Your task to perform on an android device: Search for "acer predator" on amazon.com, select the first entry, and add it to the cart. Image 0: 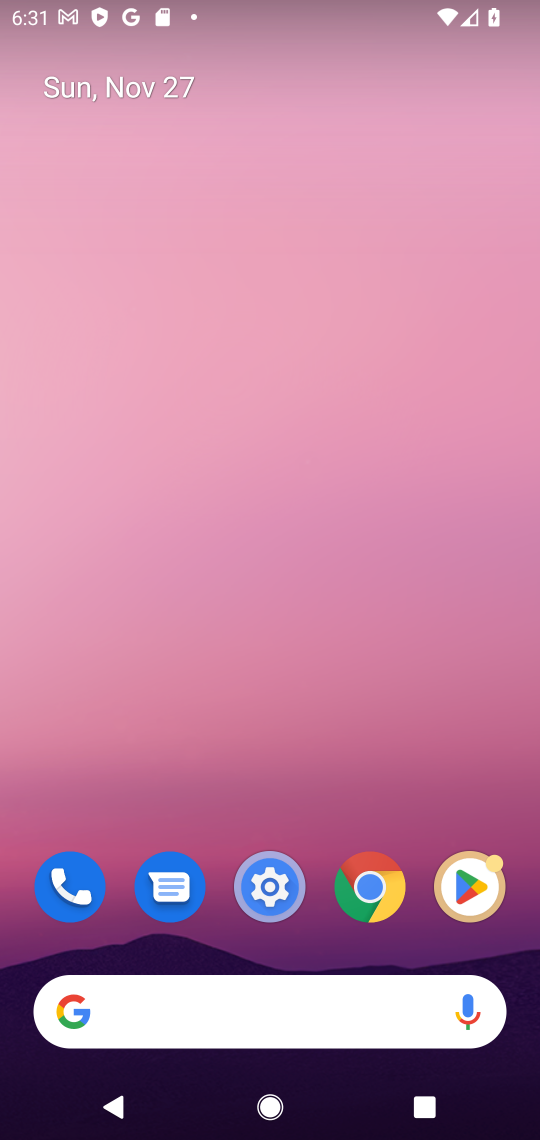
Step 0: click (254, 993)
Your task to perform on an android device: Search for "acer predator" on amazon.com, select the first entry, and add it to the cart. Image 1: 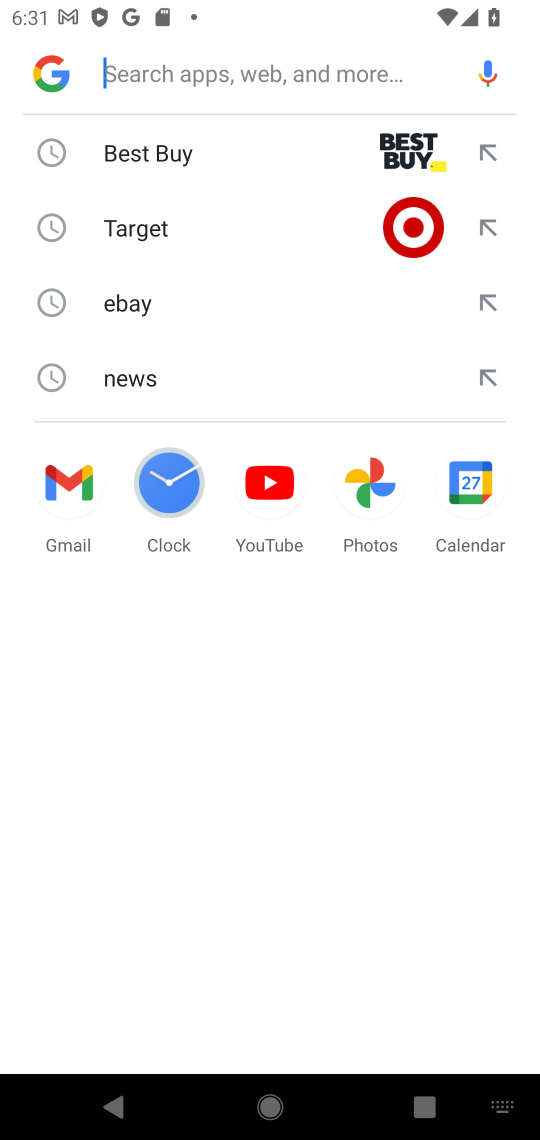
Step 1: type "amazon"
Your task to perform on an android device: Search for "acer predator" on amazon.com, select the first entry, and add it to the cart. Image 2: 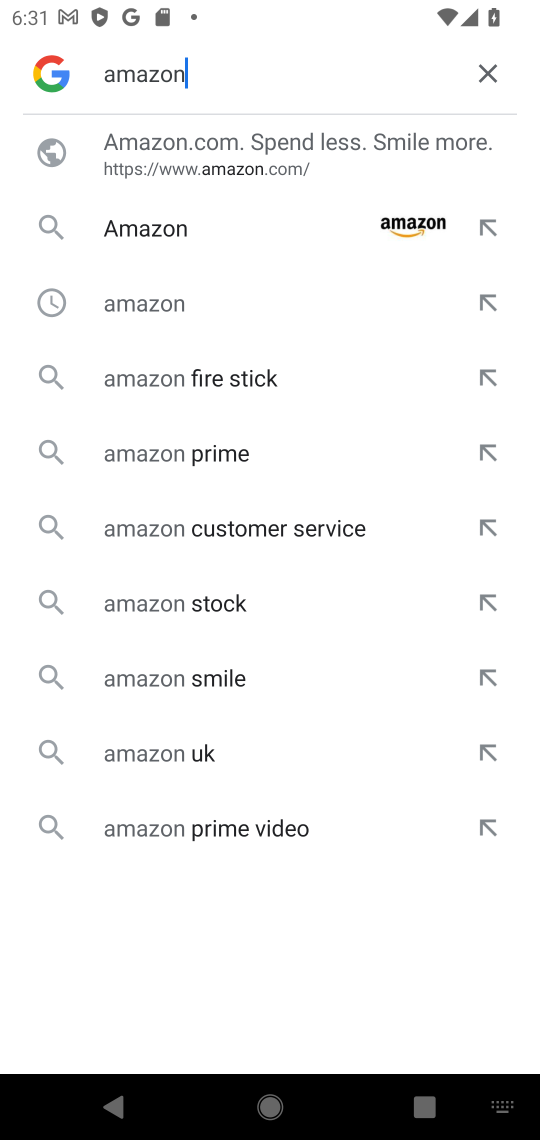
Step 2: click (152, 185)
Your task to perform on an android device: Search for "acer predator" on amazon.com, select the first entry, and add it to the cart. Image 3: 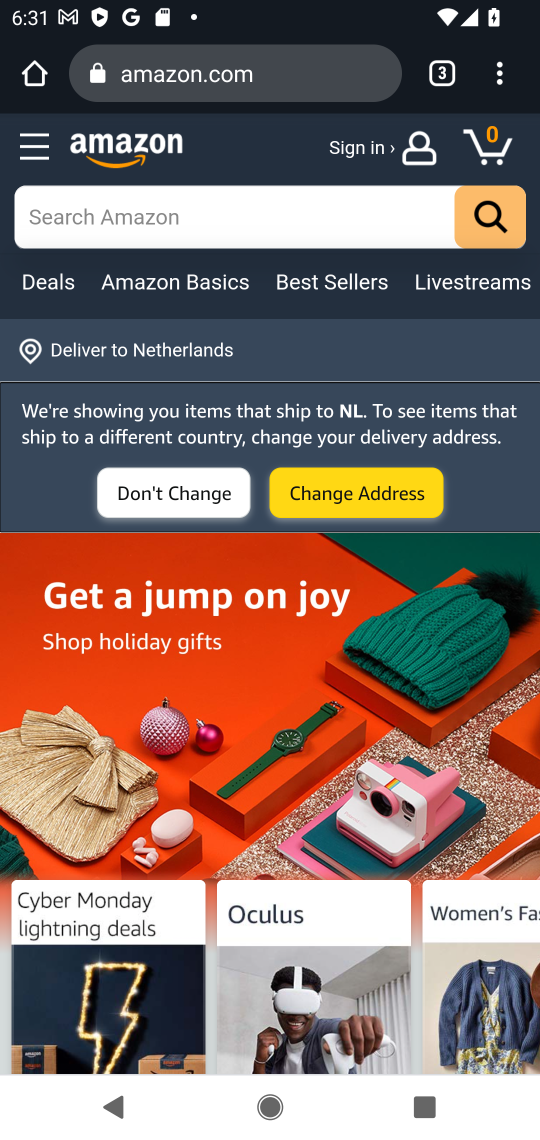
Step 3: click (247, 237)
Your task to perform on an android device: Search for "acer predator" on amazon.com, select the first entry, and add it to the cart. Image 4: 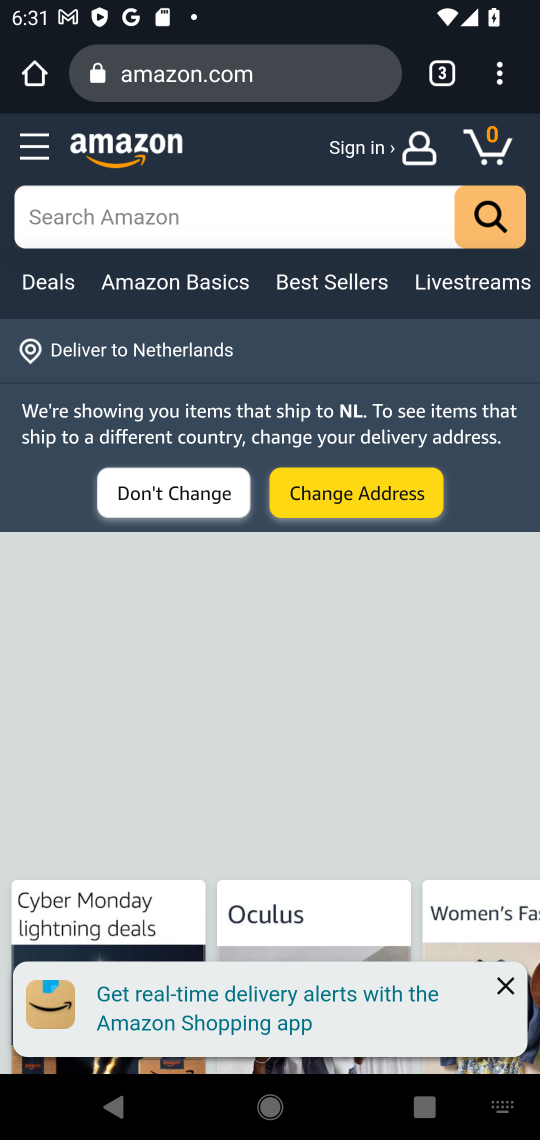
Step 4: type "acer predator"
Your task to perform on an android device: Search for "acer predator" on amazon.com, select the first entry, and add it to the cart. Image 5: 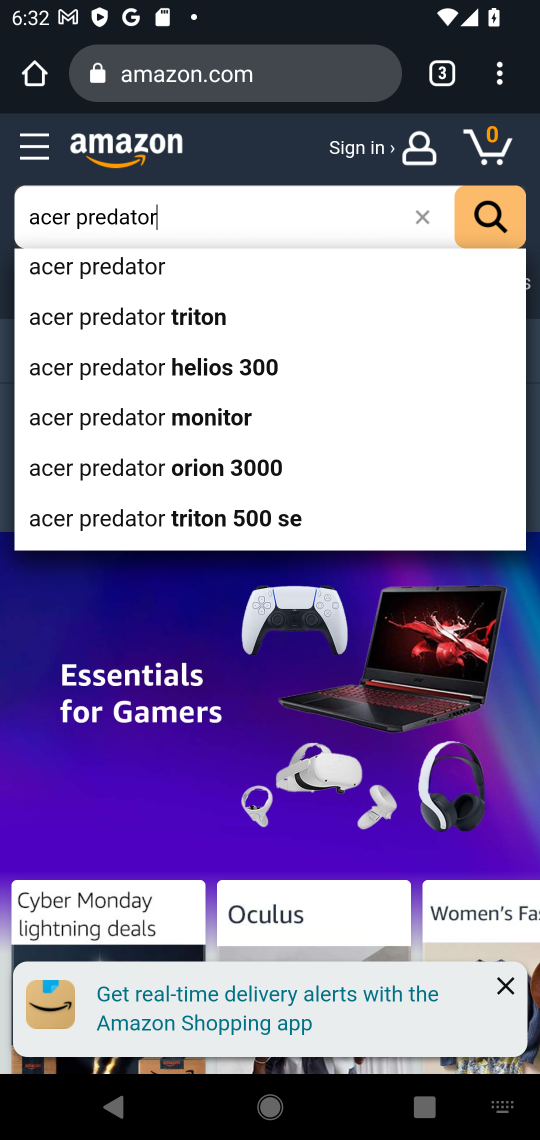
Step 5: click (176, 282)
Your task to perform on an android device: Search for "acer predator" on amazon.com, select the first entry, and add it to the cart. Image 6: 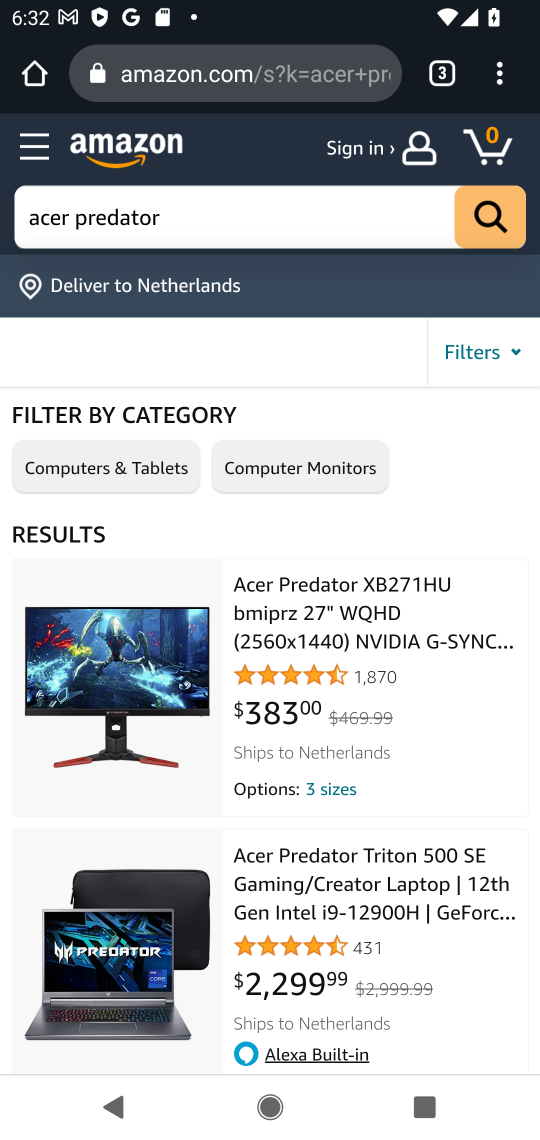
Step 6: click (344, 620)
Your task to perform on an android device: Search for "acer predator" on amazon.com, select the first entry, and add it to the cart. Image 7: 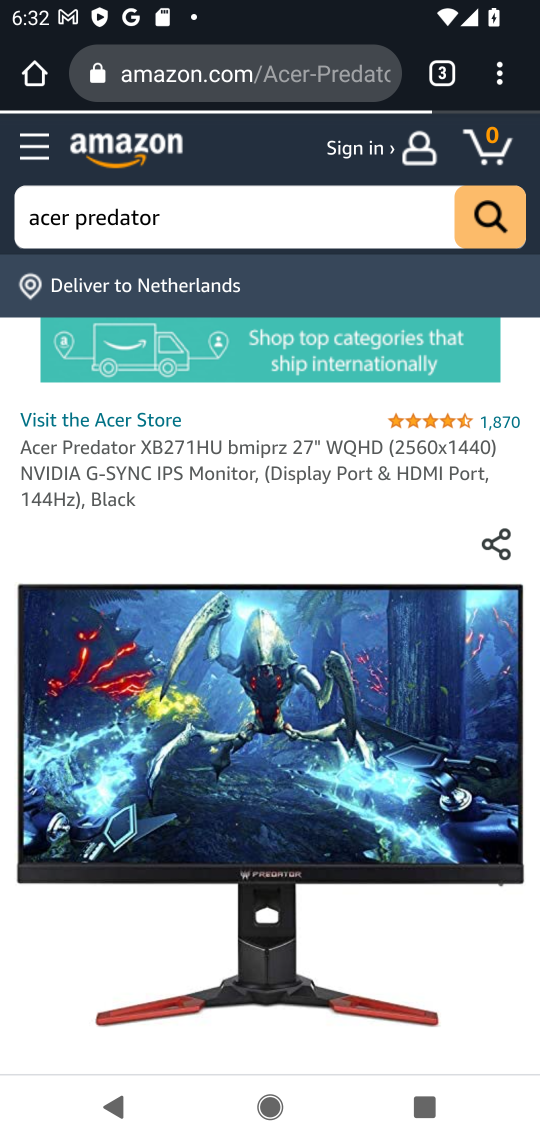
Step 7: drag from (441, 941) to (445, 511)
Your task to perform on an android device: Search for "acer predator" on amazon.com, select the first entry, and add it to the cart. Image 8: 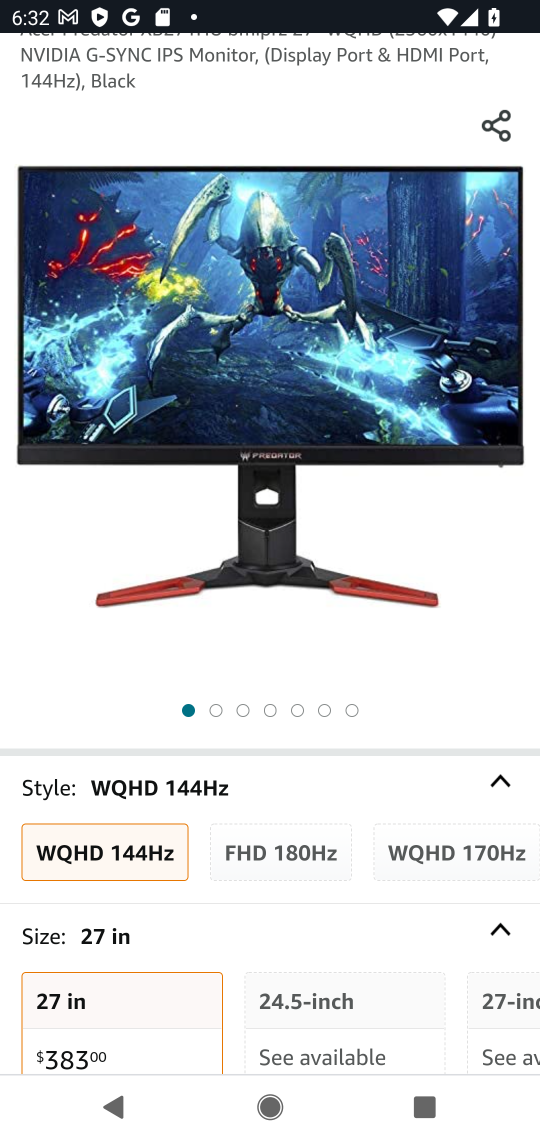
Step 8: drag from (351, 764) to (317, 452)
Your task to perform on an android device: Search for "acer predator" on amazon.com, select the first entry, and add it to the cart. Image 9: 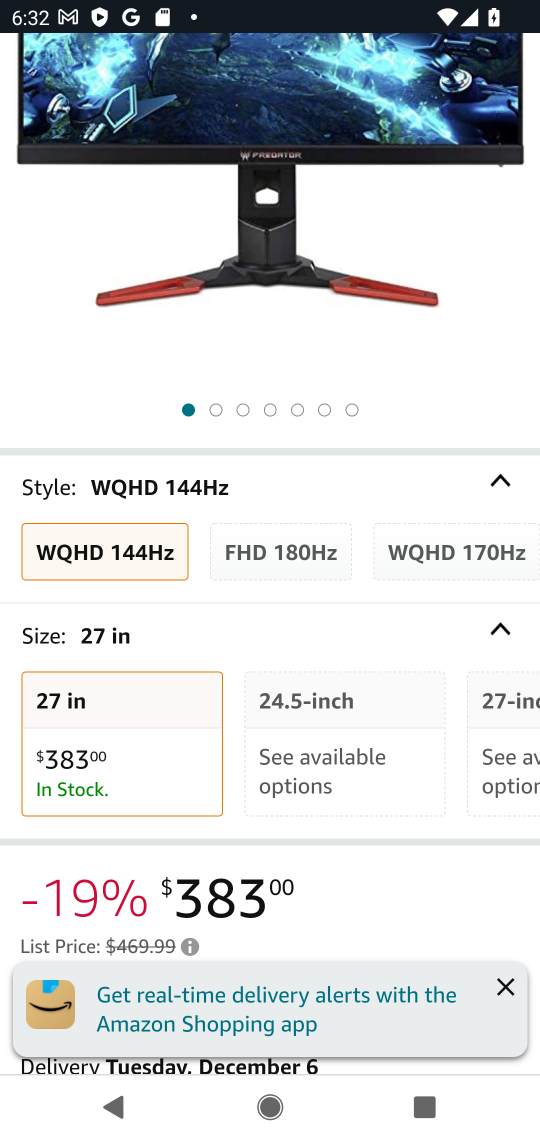
Step 9: click (507, 985)
Your task to perform on an android device: Search for "acer predator" on amazon.com, select the first entry, and add it to the cart. Image 10: 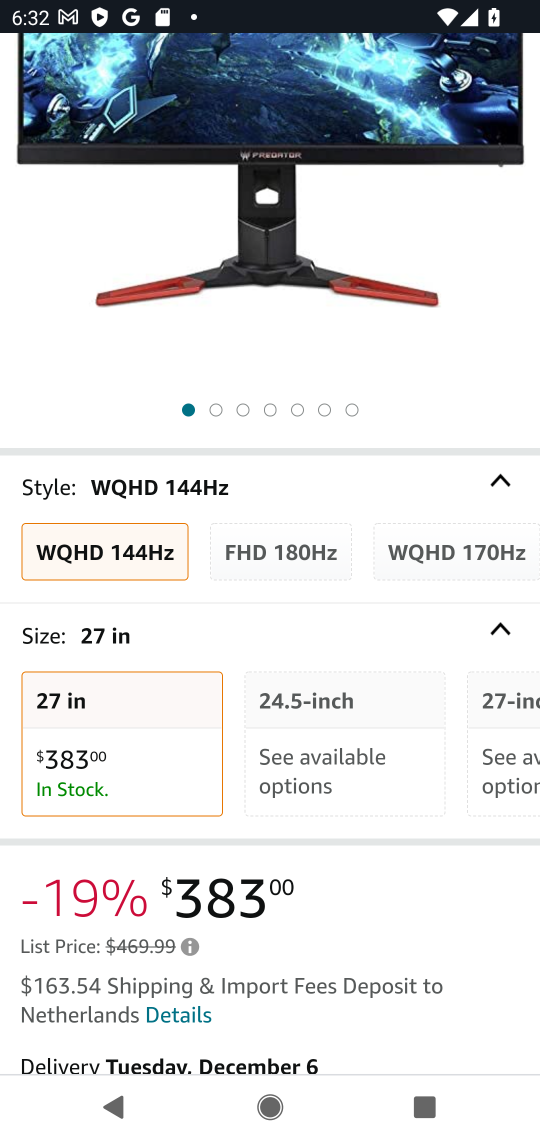
Step 10: drag from (416, 907) to (400, 335)
Your task to perform on an android device: Search for "acer predator" on amazon.com, select the first entry, and add it to the cart. Image 11: 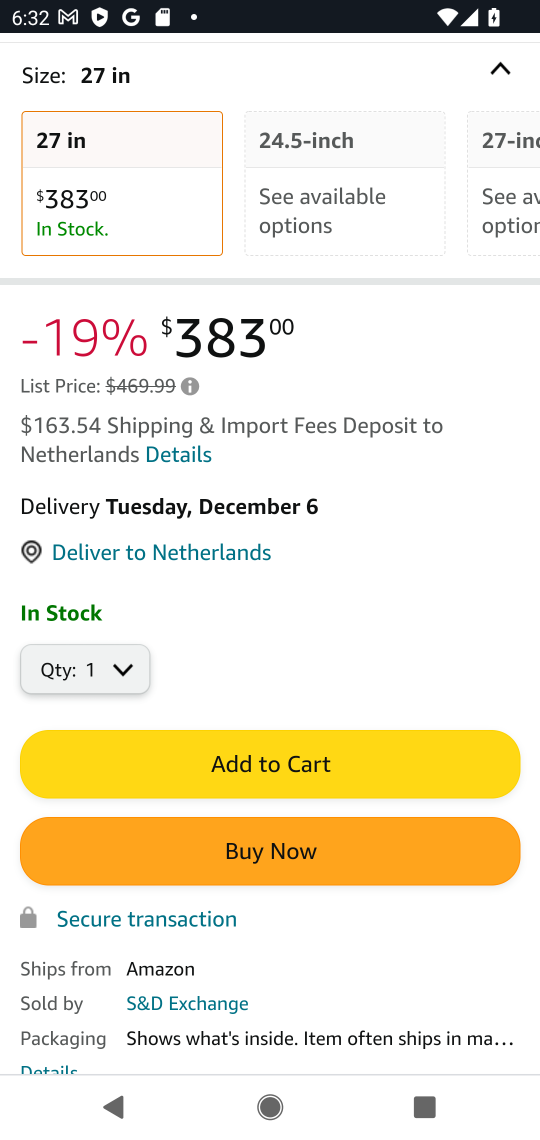
Step 11: click (427, 777)
Your task to perform on an android device: Search for "acer predator" on amazon.com, select the first entry, and add it to the cart. Image 12: 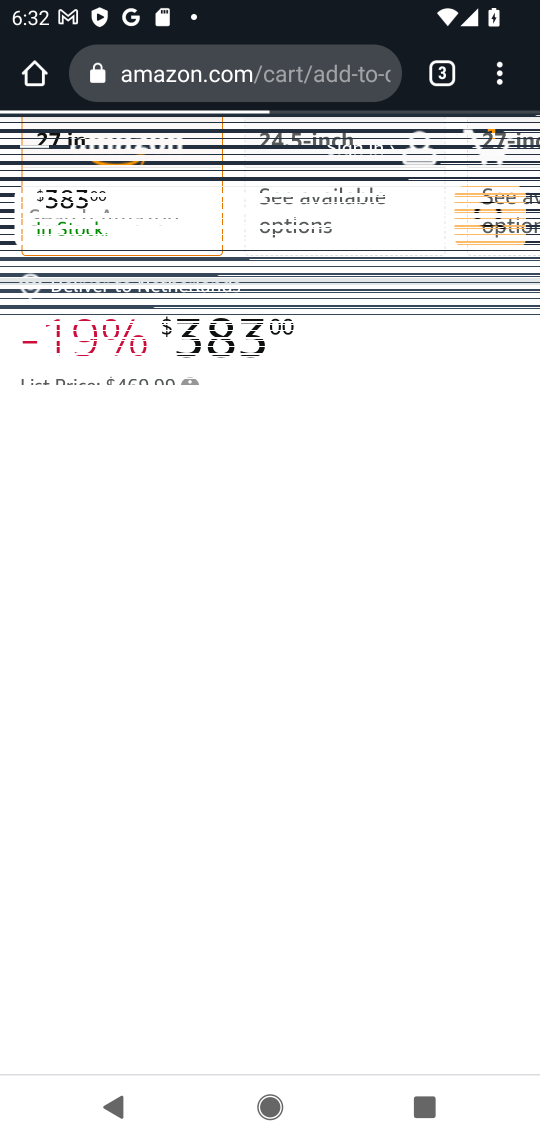
Step 12: task complete